Your task to perform on an android device: Clear all items from cart on target.com. Image 0: 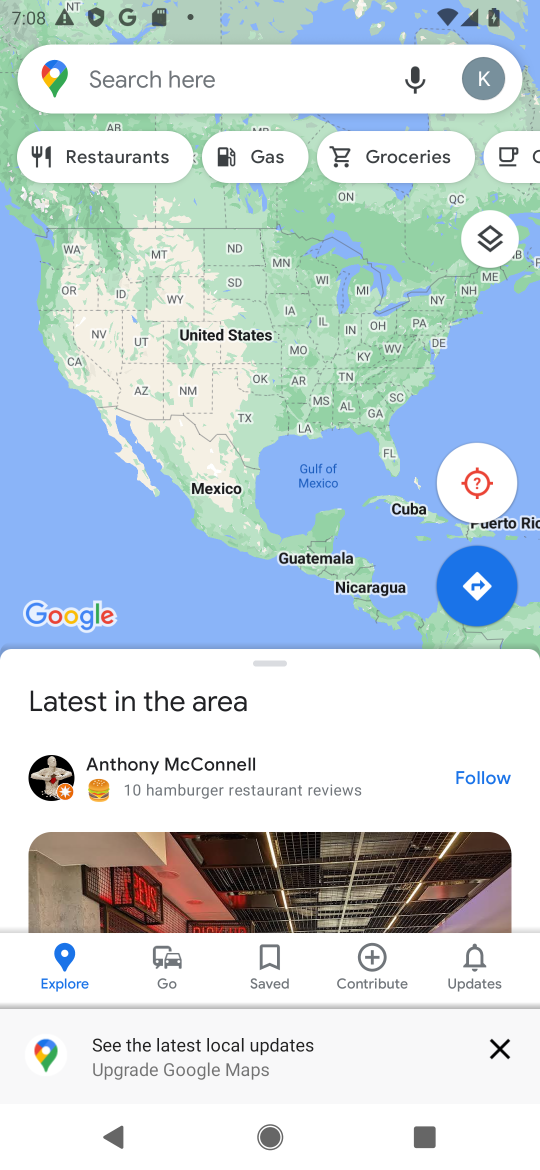
Step 0: press home button
Your task to perform on an android device: Clear all items from cart on target.com. Image 1: 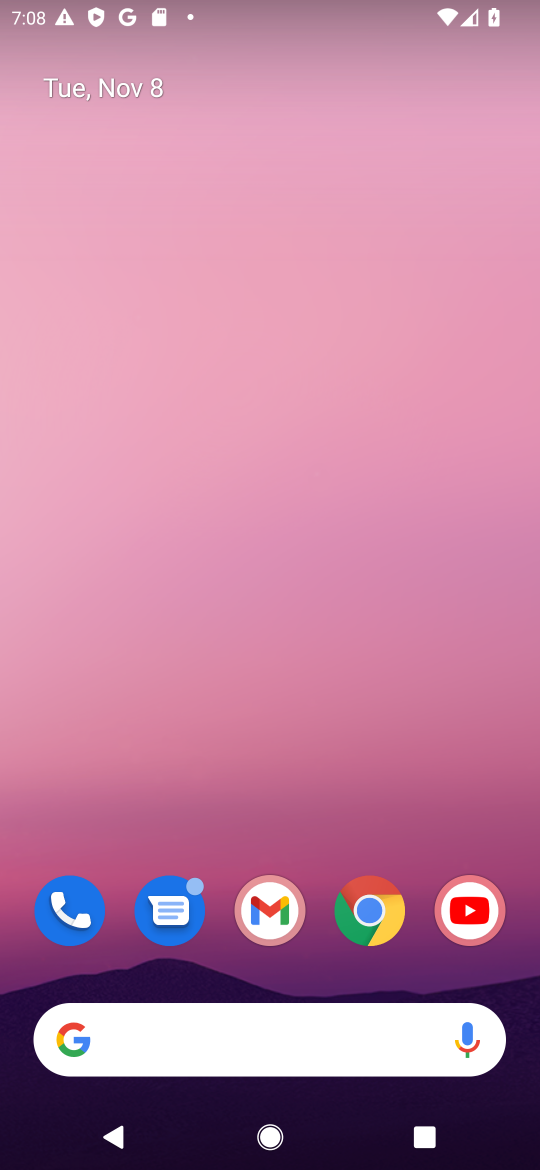
Step 1: click (365, 915)
Your task to perform on an android device: Clear all items from cart on target.com. Image 2: 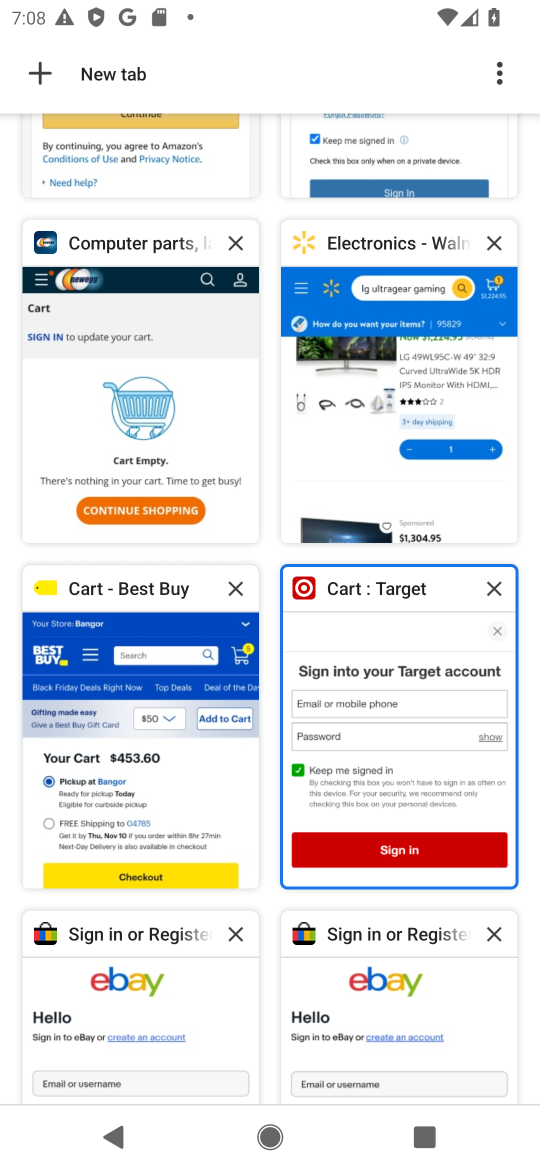
Step 2: click (391, 759)
Your task to perform on an android device: Clear all items from cart on target.com. Image 3: 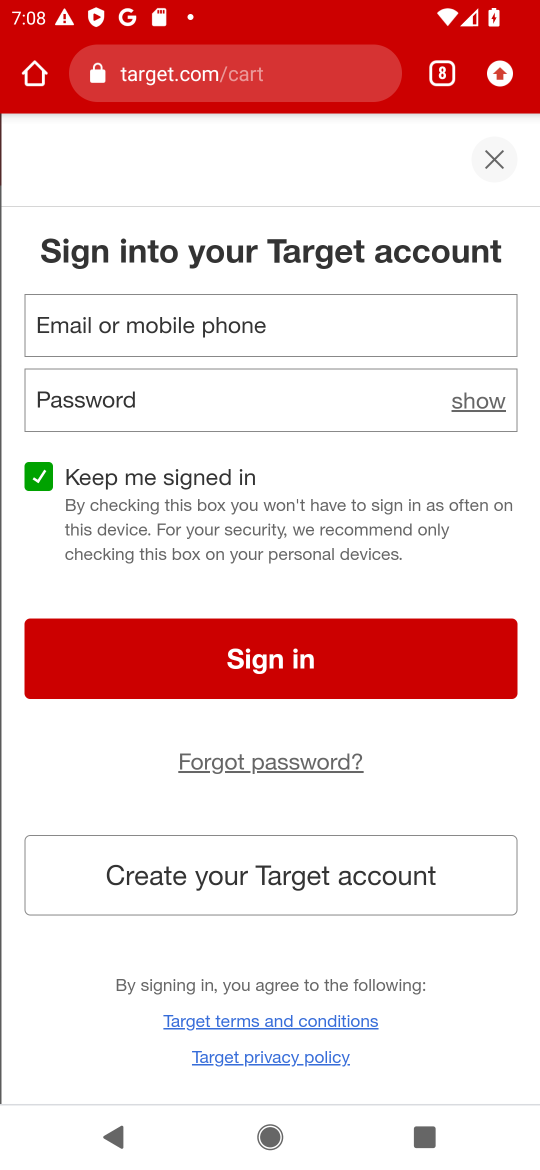
Step 3: press back button
Your task to perform on an android device: Clear all items from cart on target.com. Image 4: 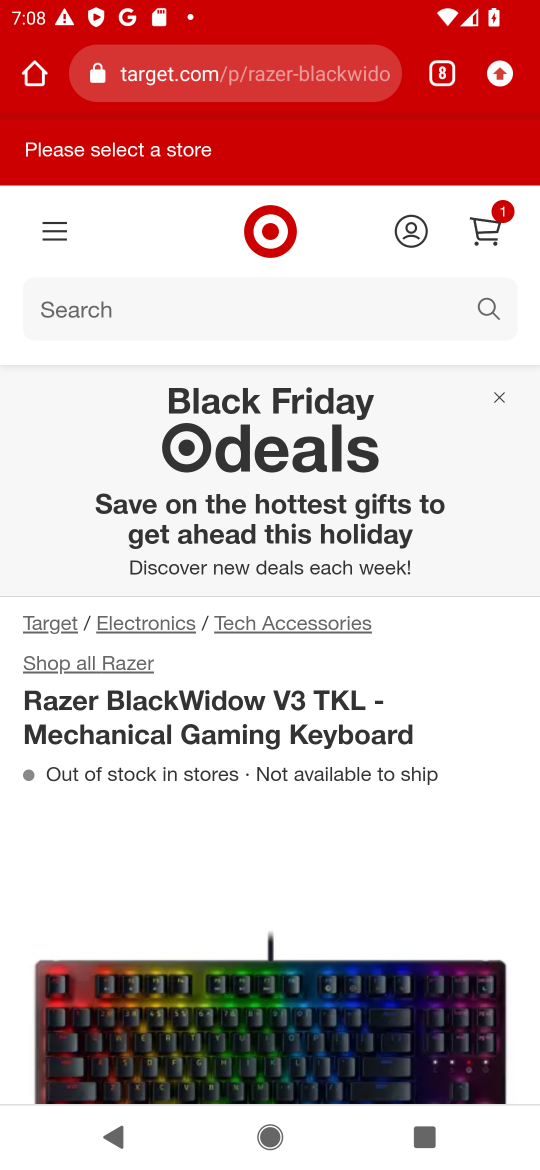
Step 4: click (497, 207)
Your task to perform on an android device: Clear all items from cart on target.com. Image 5: 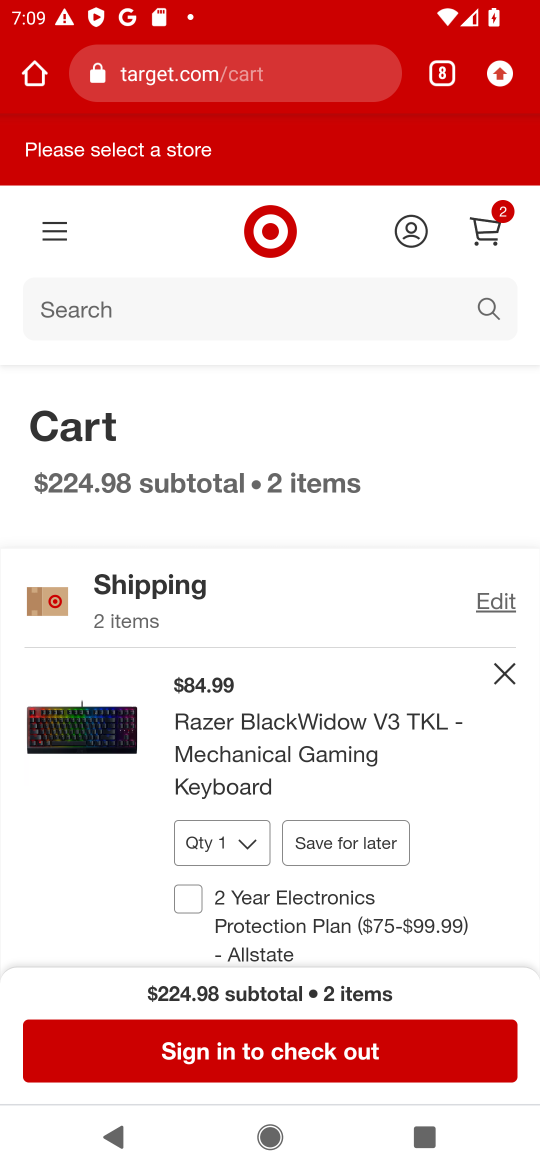
Step 5: click (496, 676)
Your task to perform on an android device: Clear all items from cart on target.com. Image 6: 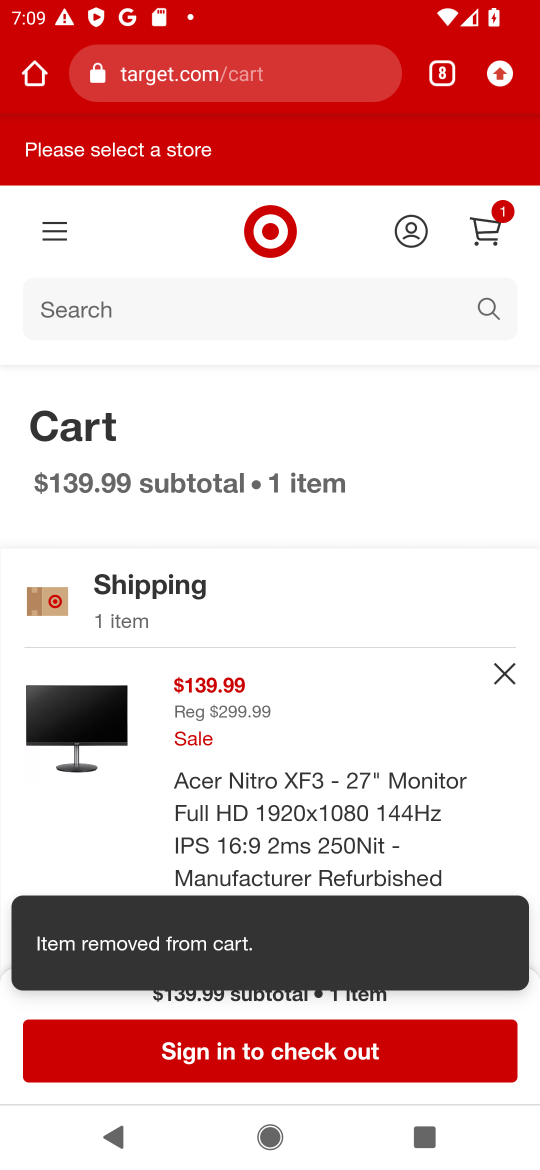
Step 6: click (496, 676)
Your task to perform on an android device: Clear all items from cart on target.com. Image 7: 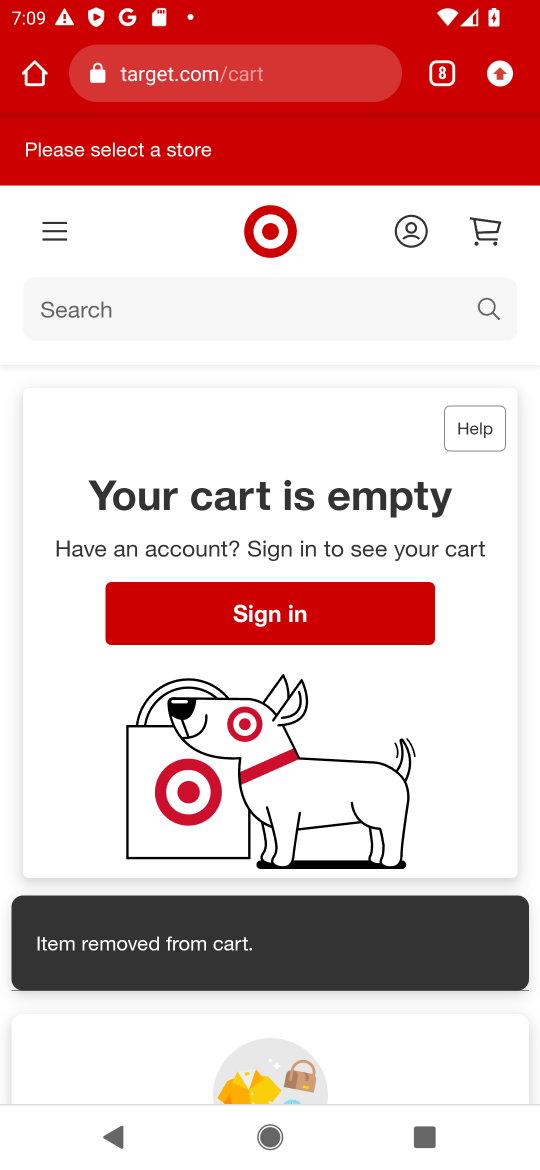
Step 7: task complete